Your task to perform on an android device: turn on showing notifications on the lock screen Image 0: 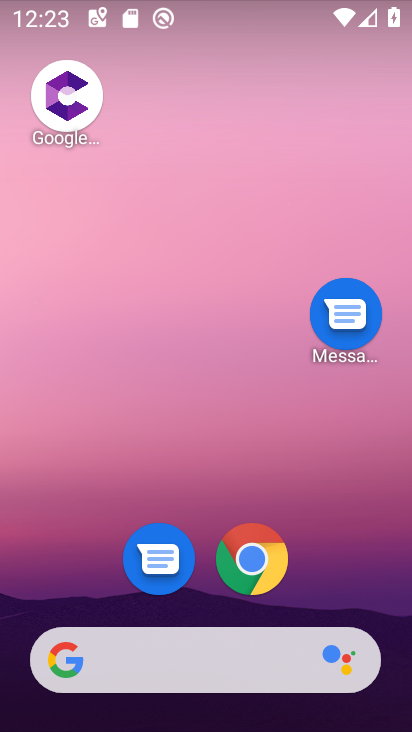
Step 0: drag from (373, 569) to (375, 77)
Your task to perform on an android device: turn on showing notifications on the lock screen Image 1: 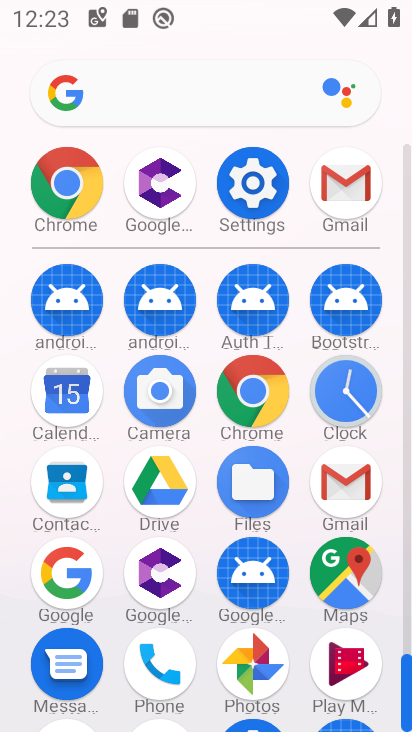
Step 1: click (254, 184)
Your task to perform on an android device: turn on showing notifications on the lock screen Image 2: 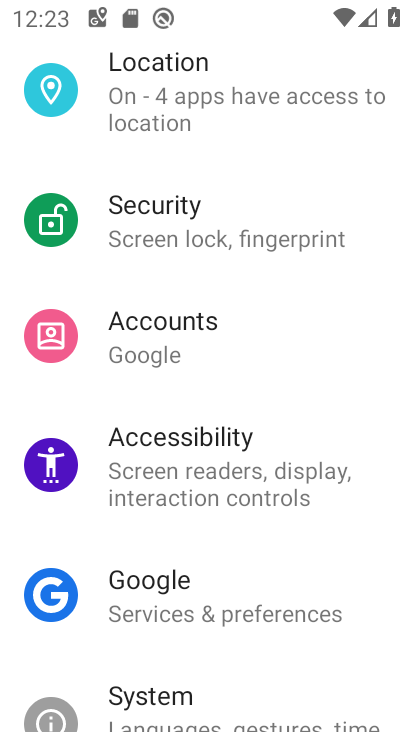
Step 2: drag from (351, 160) to (364, 248)
Your task to perform on an android device: turn on showing notifications on the lock screen Image 3: 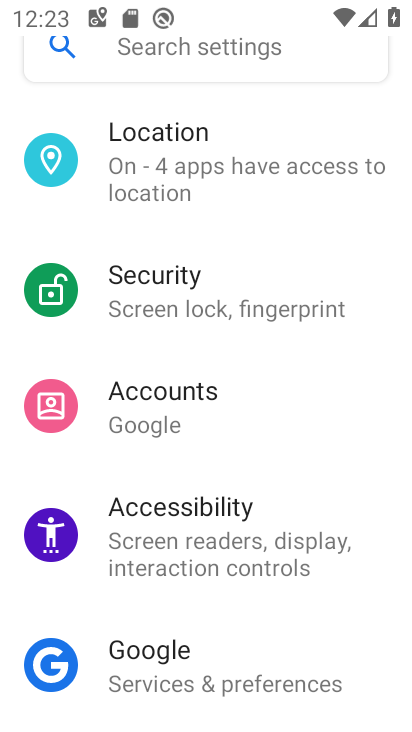
Step 3: drag from (360, 233) to (361, 297)
Your task to perform on an android device: turn on showing notifications on the lock screen Image 4: 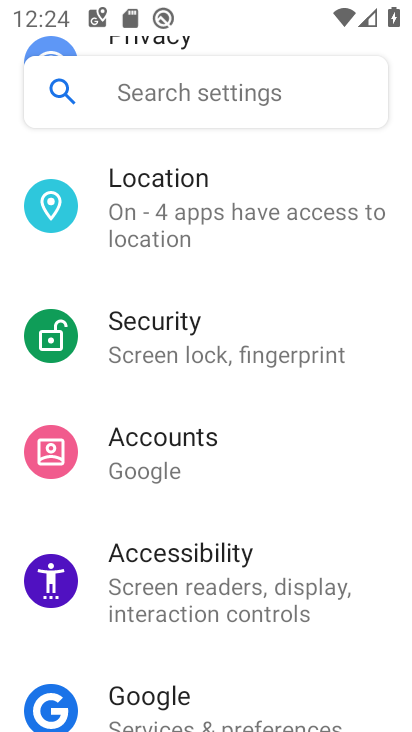
Step 4: drag from (355, 217) to (359, 306)
Your task to perform on an android device: turn on showing notifications on the lock screen Image 5: 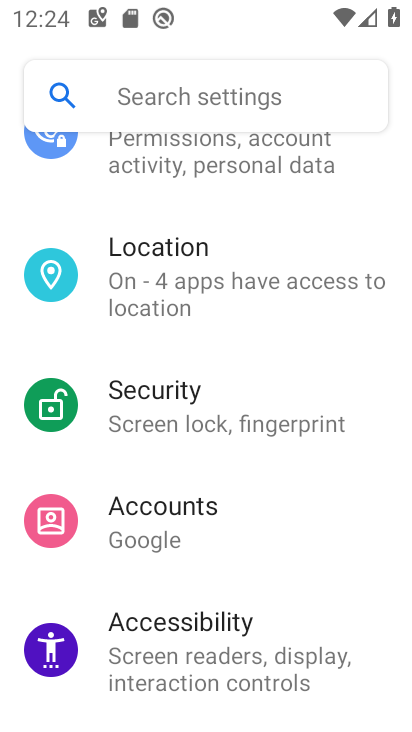
Step 5: drag from (364, 217) to (366, 298)
Your task to perform on an android device: turn on showing notifications on the lock screen Image 6: 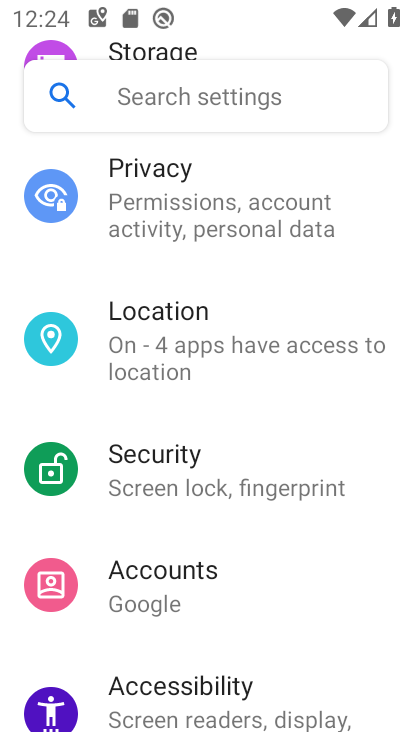
Step 6: drag from (361, 231) to (361, 325)
Your task to perform on an android device: turn on showing notifications on the lock screen Image 7: 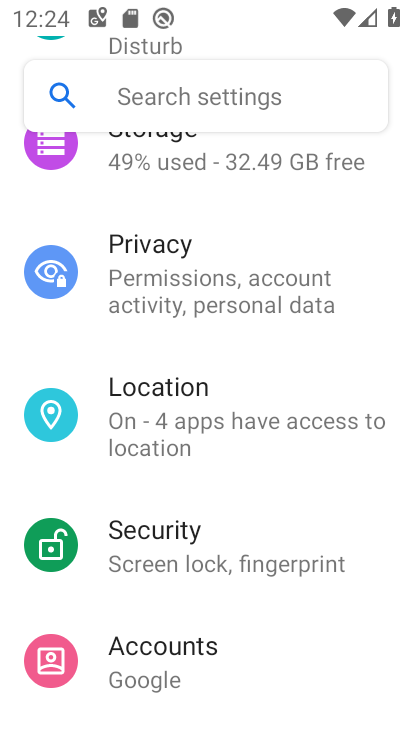
Step 7: drag from (347, 284) to (351, 363)
Your task to perform on an android device: turn on showing notifications on the lock screen Image 8: 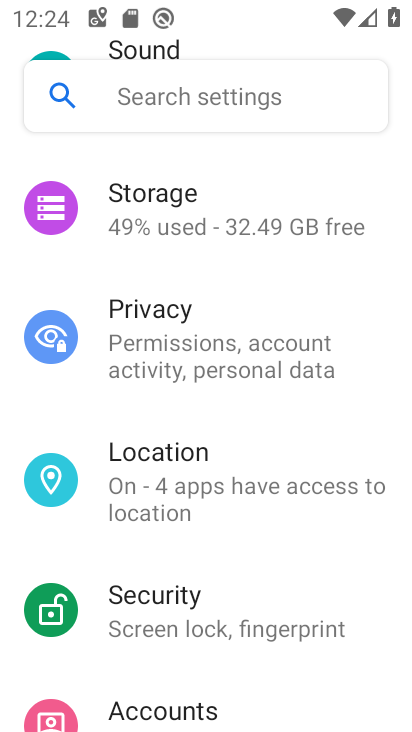
Step 8: drag from (363, 267) to (364, 349)
Your task to perform on an android device: turn on showing notifications on the lock screen Image 9: 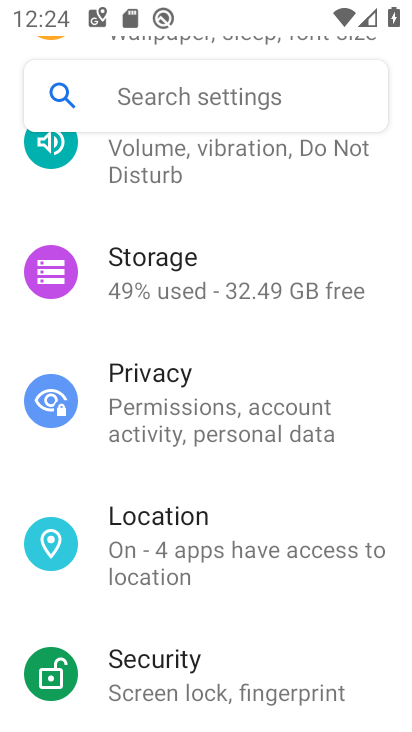
Step 9: drag from (381, 268) to (377, 360)
Your task to perform on an android device: turn on showing notifications on the lock screen Image 10: 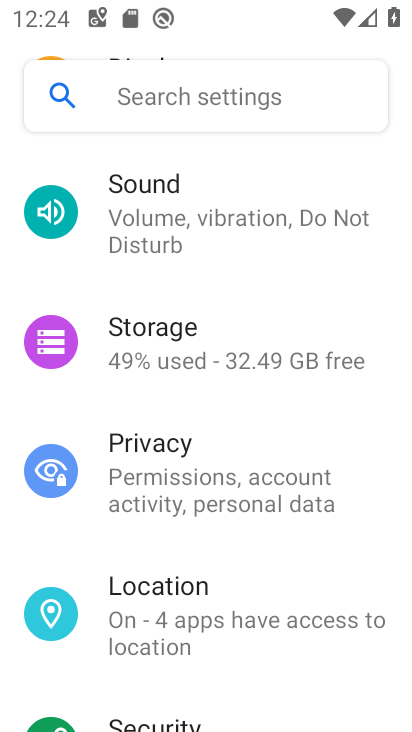
Step 10: drag from (372, 213) to (363, 388)
Your task to perform on an android device: turn on showing notifications on the lock screen Image 11: 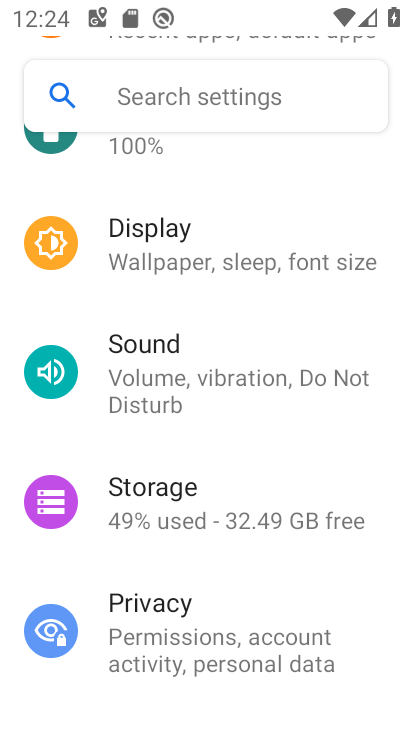
Step 11: drag from (331, 259) to (336, 401)
Your task to perform on an android device: turn on showing notifications on the lock screen Image 12: 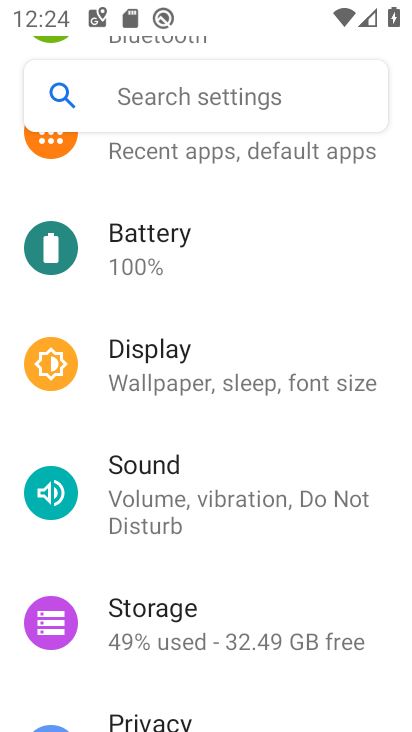
Step 12: drag from (307, 264) to (307, 361)
Your task to perform on an android device: turn on showing notifications on the lock screen Image 13: 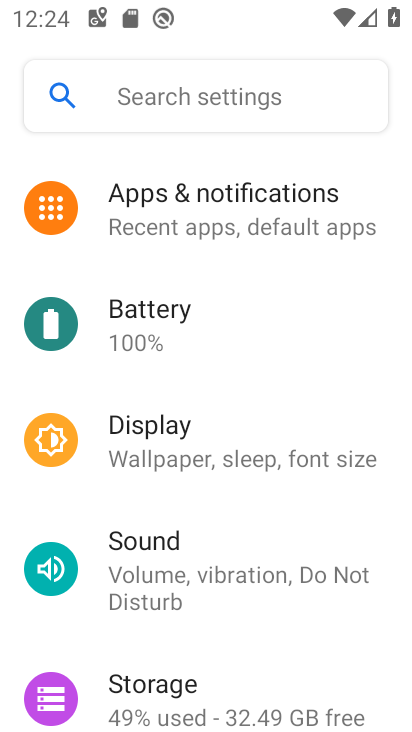
Step 13: drag from (323, 305) to (329, 429)
Your task to perform on an android device: turn on showing notifications on the lock screen Image 14: 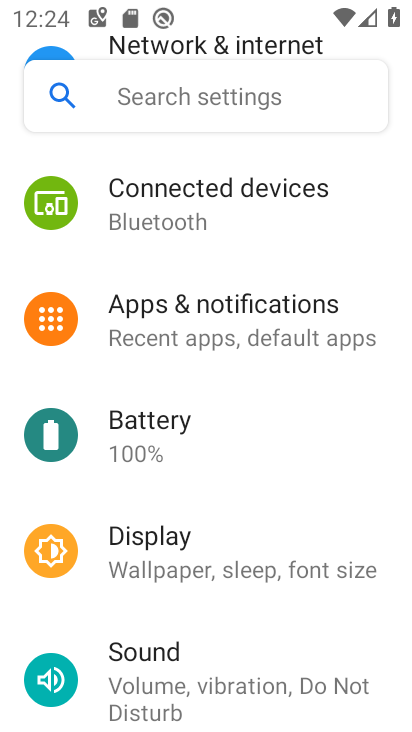
Step 14: drag from (359, 218) to (358, 355)
Your task to perform on an android device: turn on showing notifications on the lock screen Image 15: 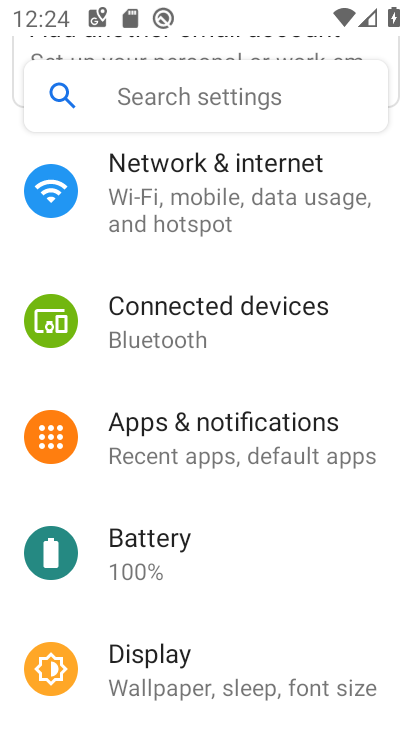
Step 15: click (296, 444)
Your task to perform on an android device: turn on showing notifications on the lock screen Image 16: 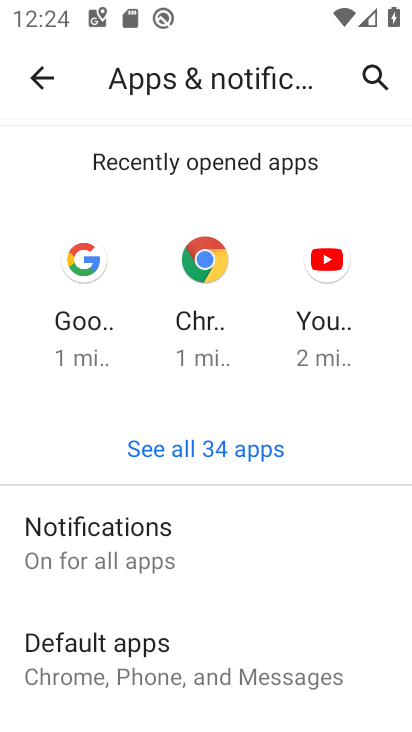
Step 16: click (199, 546)
Your task to perform on an android device: turn on showing notifications on the lock screen Image 17: 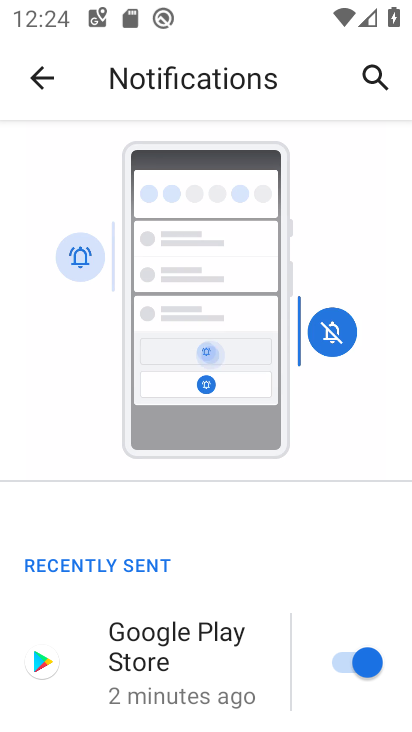
Step 17: drag from (315, 585) to (329, 469)
Your task to perform on an android device: turn on showing notifications on the lock screen Image 18: 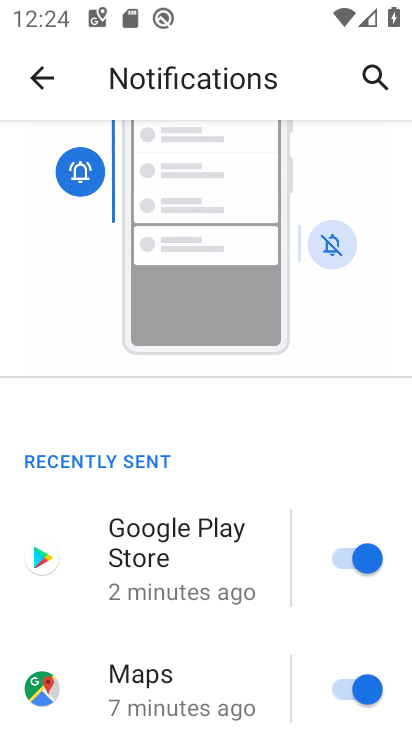
Step 18: drag from (263, 640) to (266, 534)
Your task to perform on an android device: turn on showing notifications on the lock screen Image 19: 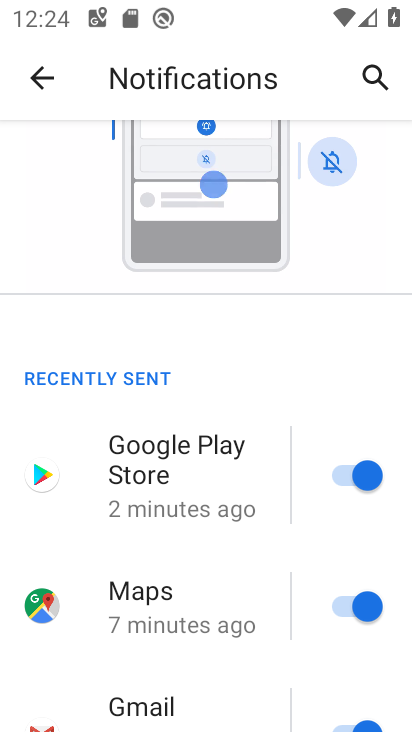
Step 19: drag from (251, 677) to (273, 531)
Your task to perform on an android device: turn on showing notifications on the lock screen Image 20: 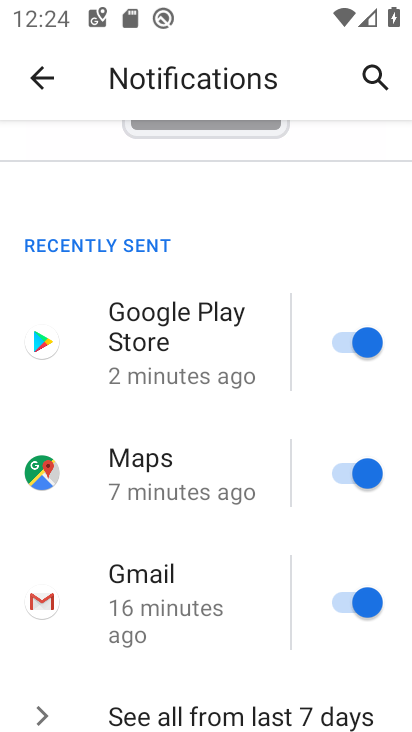
Step 20: drag from (237, 664) to (275, 484)
Your task to perform on an android device: turn on showing notifications on the lock screen Image 21: 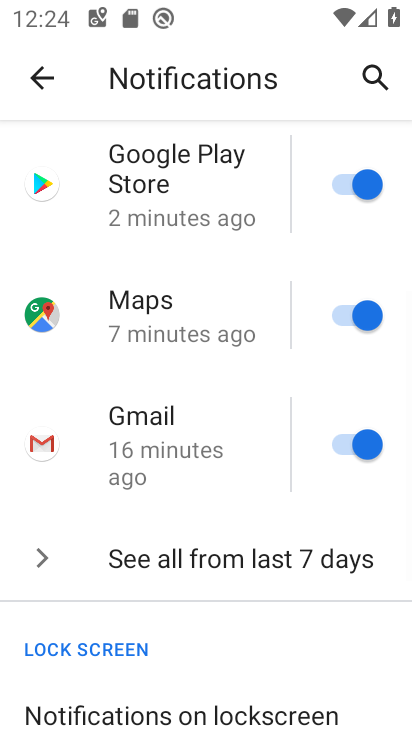
Step 21: drag from (265, 659) to (265, 565)
Your task to perform on an android device: turn on showing notifications on the lock screen Image 22: 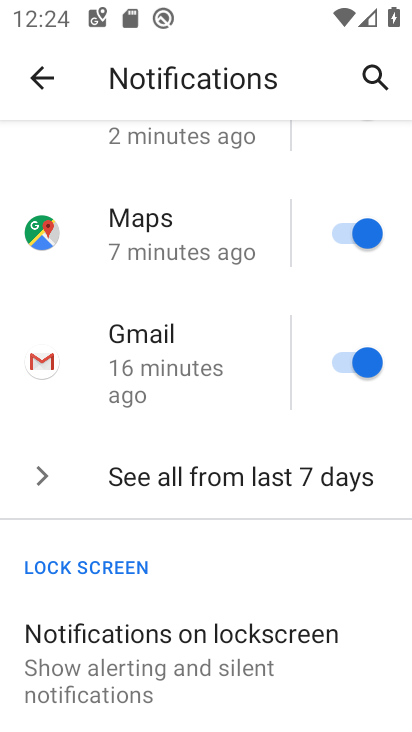
Step 22: drag from (278, 683) to (279, 576)
Your task to perform on an android device: turn on showing notifications on the lock screen Image 23: 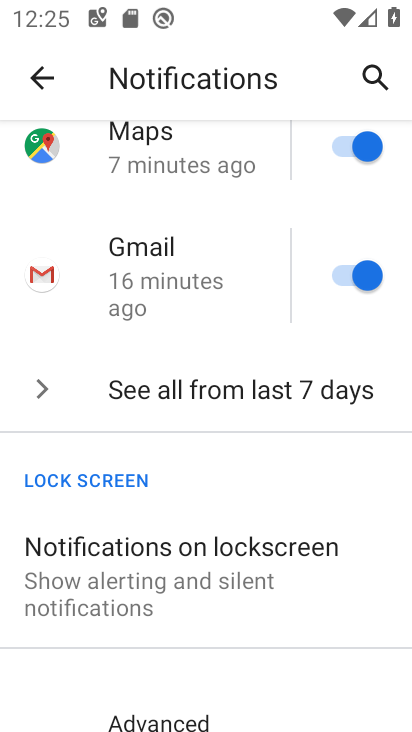
Step 23: click (255, 563)
Your task to perform on an android device: turn on showing notifications on the lock screen Image 24: 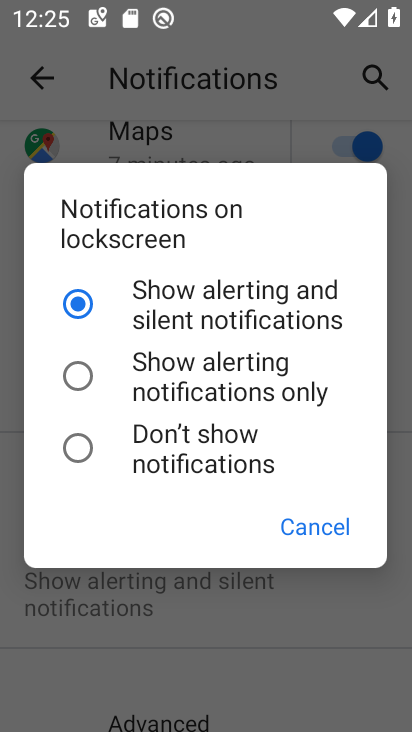
Step 24: task complete